Your task to perform on an android device: Show me popular videos on Youtube Image 0: 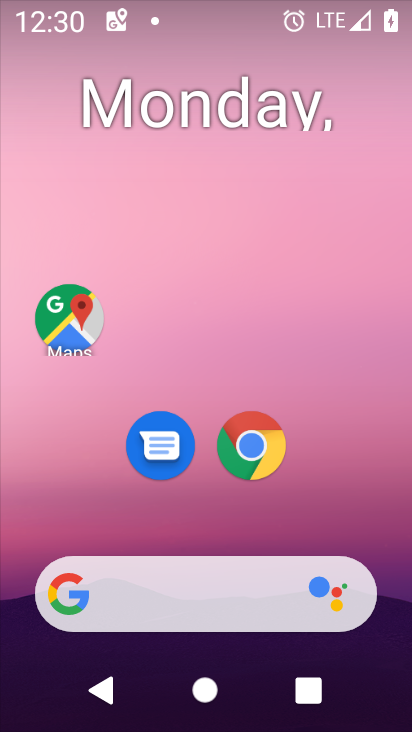
Step 0: drag from (214, 480) to (147, 8)
Your task to perform on an android device: Show me popular videos on Youtube Image 1: 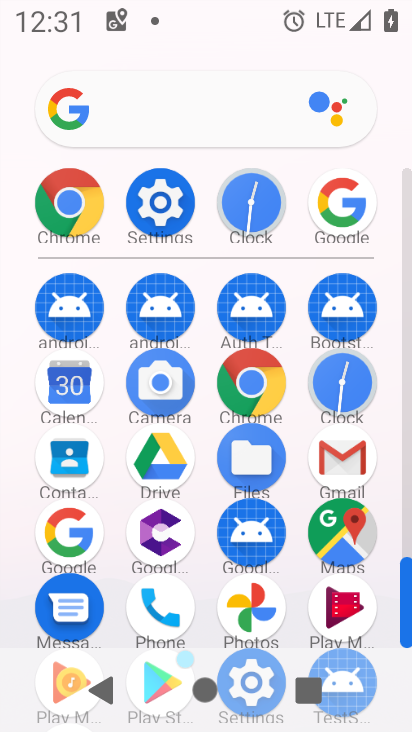
Step 1: drag from (197, 588) to (236, 104)
Your task to perform on an android device: Show me popular videos on Youtube Image 2: 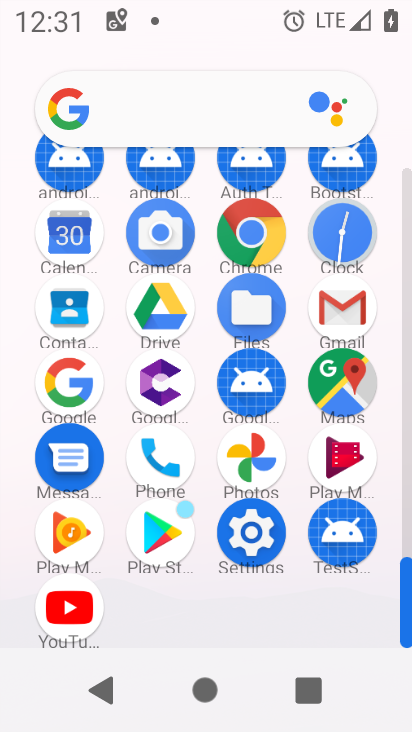
Step 2: click (61, 600)
Your task to perform on an android device: Show me popular videos on Youtube Image 3: 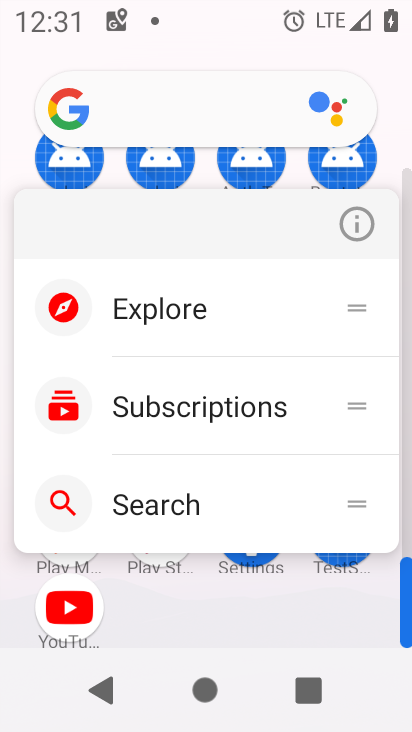
Step 3: click (352, 224)
Your task to perform on an android device: Show me popular videos on Youtube Image 4: 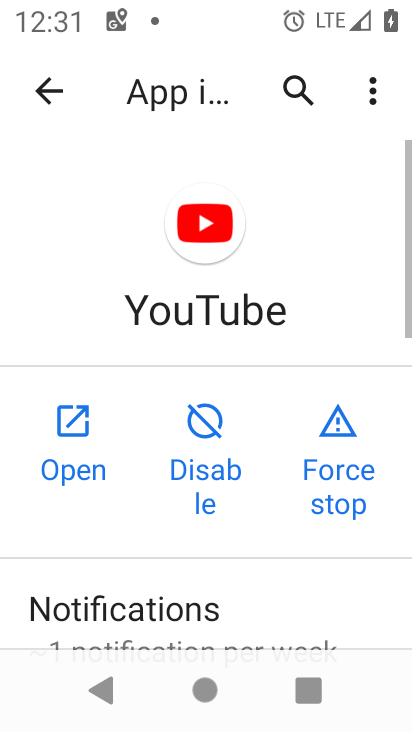
Step 4: click (69, 422)
Your task to perform on an android device: Show me popular videos on Youtube Image 5: 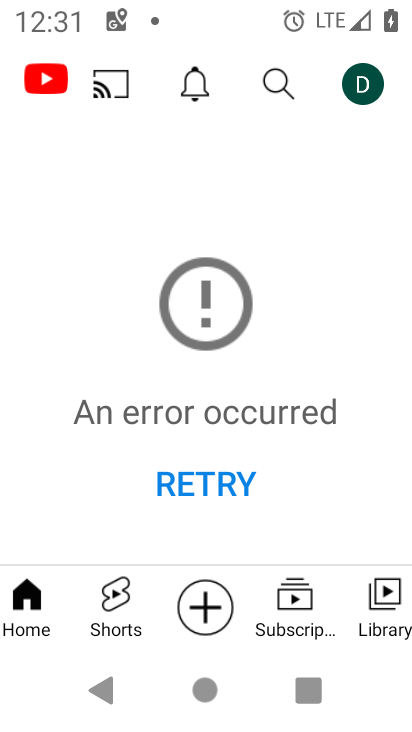
Step 5: click (208, 471)
Your task to perform on an android device: Show me popular videos on Youtube Image 6: 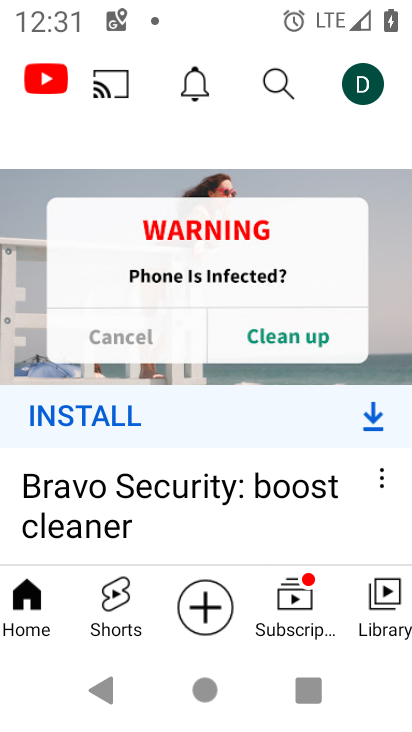
Step 6: task complete